Your task to perform on an android device: Open the calendar and show me this week's events Image 0: 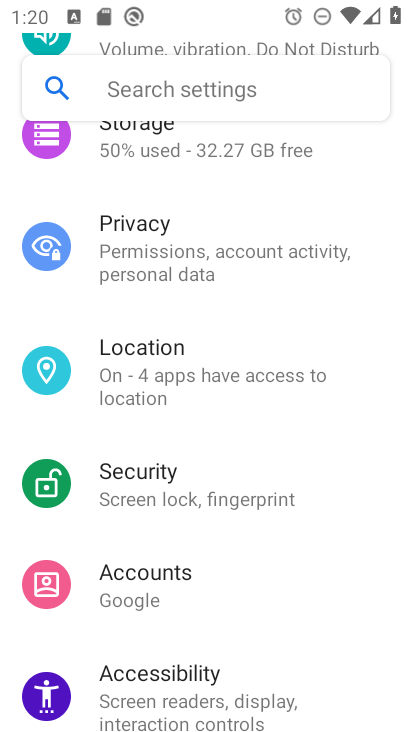
Step 0: press home button
Your task to perform on an android device: Open the calendar and show me this week's events Image 1: 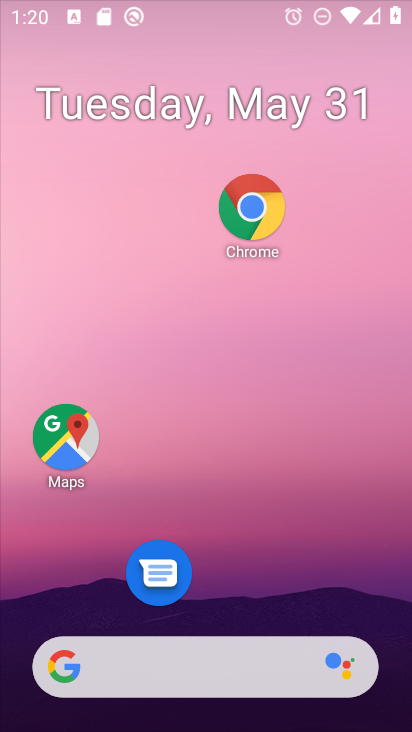
Step 1: drag from (278, 630) to (314, 223)
Your task to perform on an android device: Open the calendar and show me this week's events Image 2: 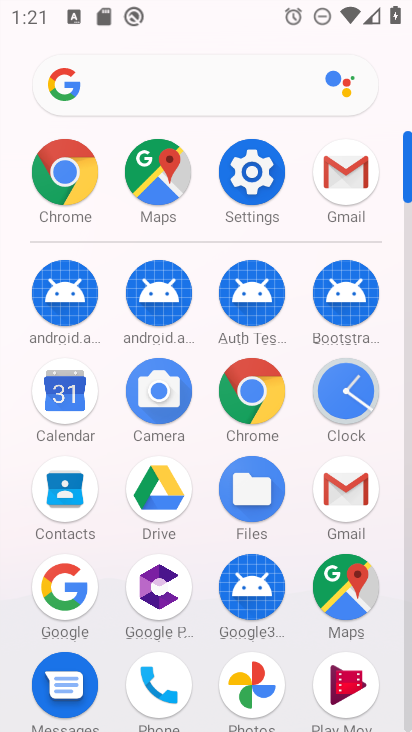
Step 2: click (80, 421)
Your task to perform on an android device: Open the calendar and show me this week's events Image 3: 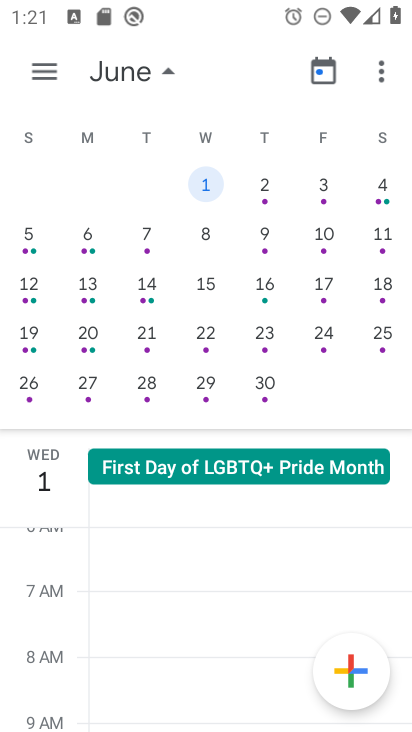
Step 3: drag from (64, 286) to (396, 333)
Your task to perform on an android device: Open the calendar and show me this week's events Image 4: 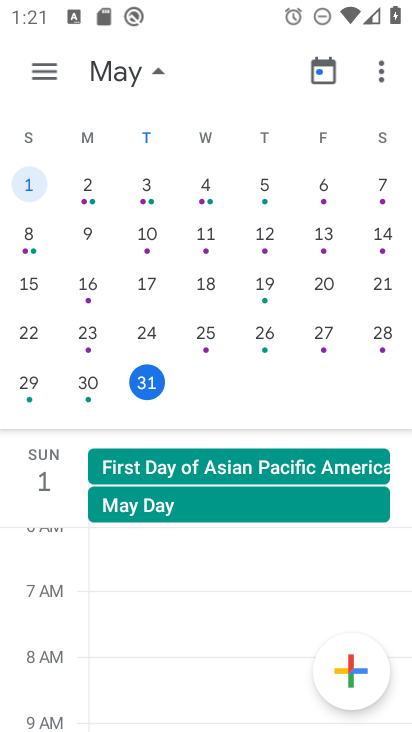
Step 4: drag from (293, 349) to (403, 327)
Your task to perform on an android device: Open the calendar and show me this week's events Image 5: 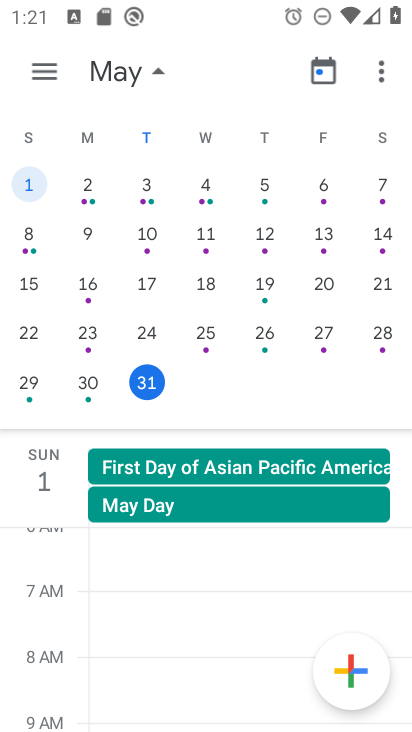
Step 5: click (148, 385)
Your task to perform on an android device: Open the calendar and show me this week's events Image 6: 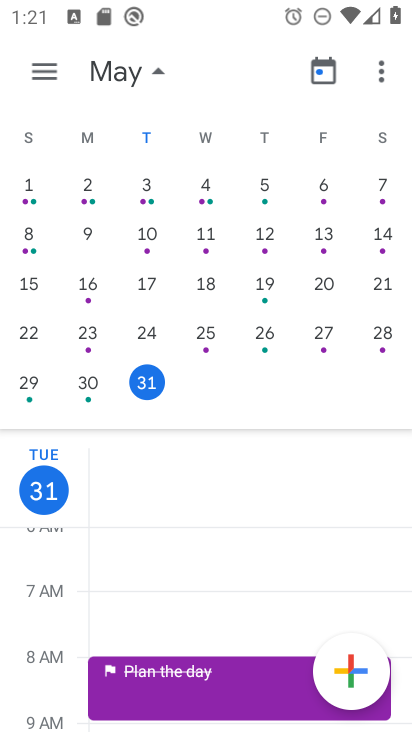
Step 6: task complete